Your task to perform on an android device: change the upload size in google photos Image 0: 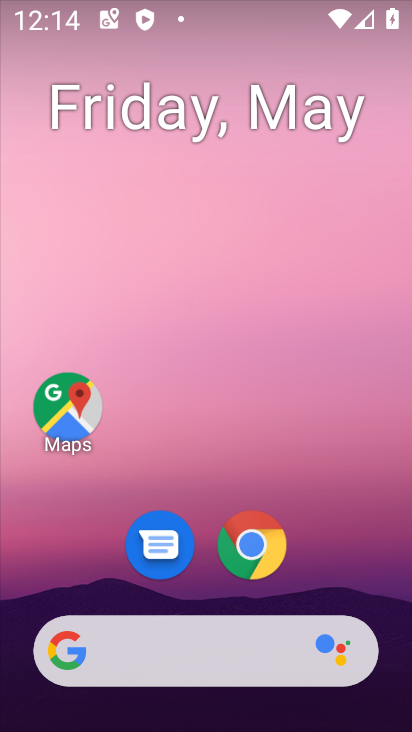
Step 0: drag from (316, 494) to (310, 269)
Your task to perform on an android device: change the upload size in google photos Image 1: 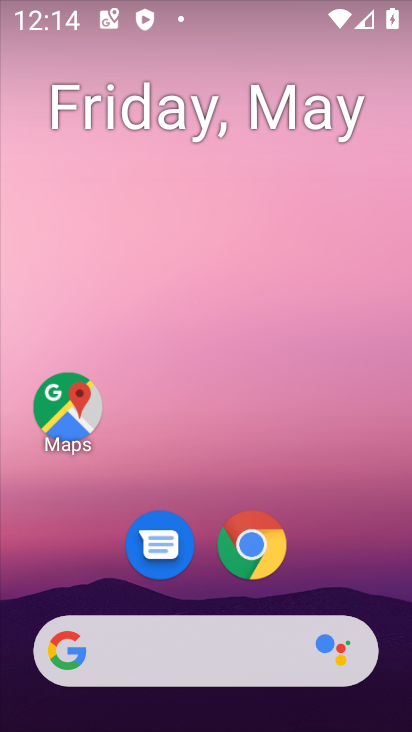
Step 1: drag from (315, 469) to (336, 131)
Your task to perform on an android device: change the upload size in google photos Image 2: 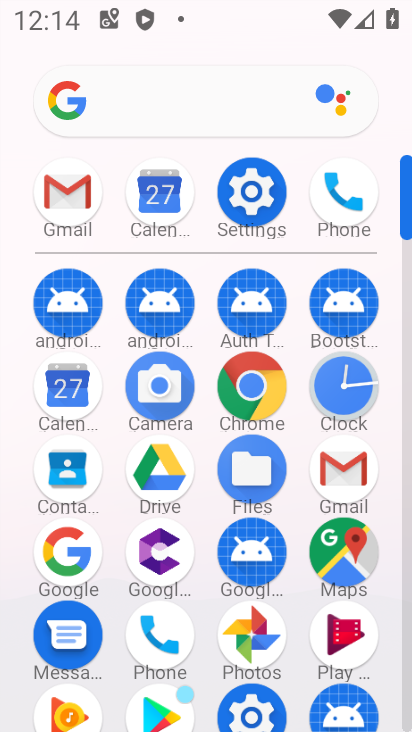
Step 2: click (254, 627)
Your task to perform on an android device: change the upload size in google photos Image 3: 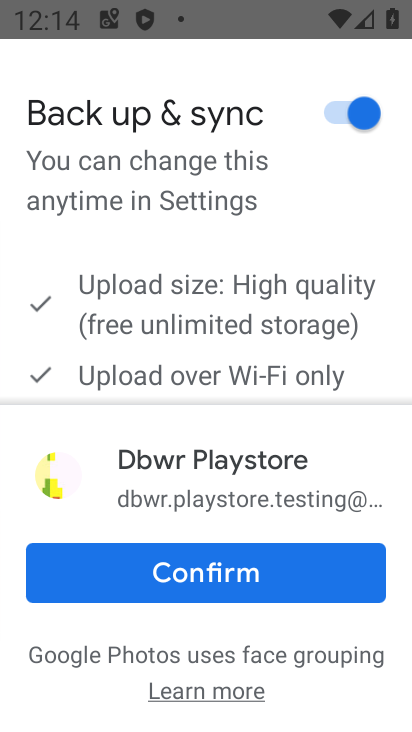
Step 3: click (240, 566)
Your task to perform on an android device: change the upload size in google photos Image 4: 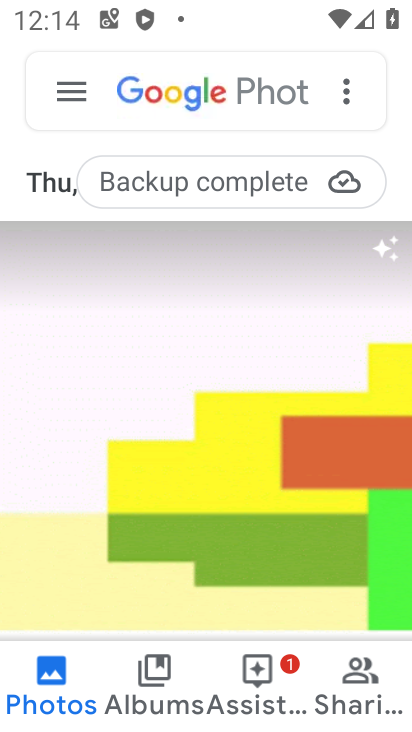
Step 4: click (67, 89)
Your task to perform on an android device: change the upload size in google photos Image 5: 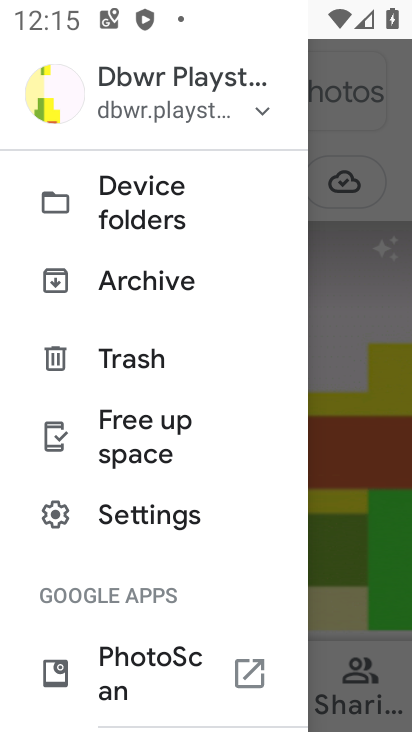
Step 5: click (141, 518)
Your task to perform on an android device: change the upload size in google photos Image 6: 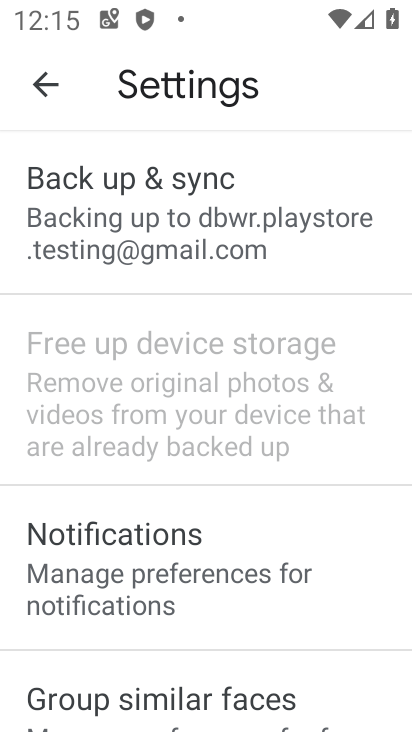
Step 6: click (158, 197)
Your task to perform on an android device: change the upload size in google photos Image 7: 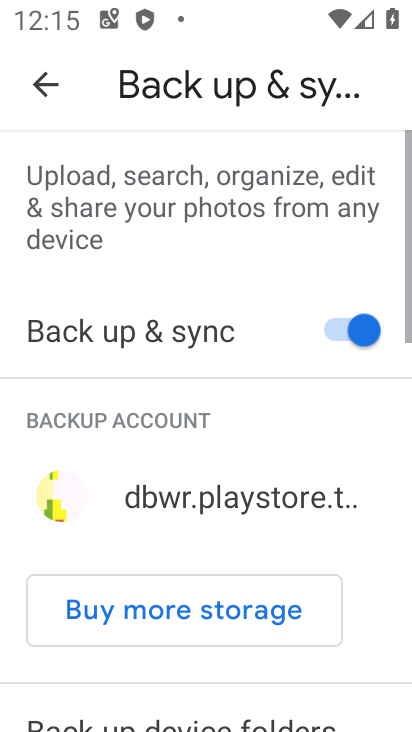
Step 7: drag from (212, 502) to (268, 213)
Your task to perform on an android device: change the upload size in google photos Image 8: 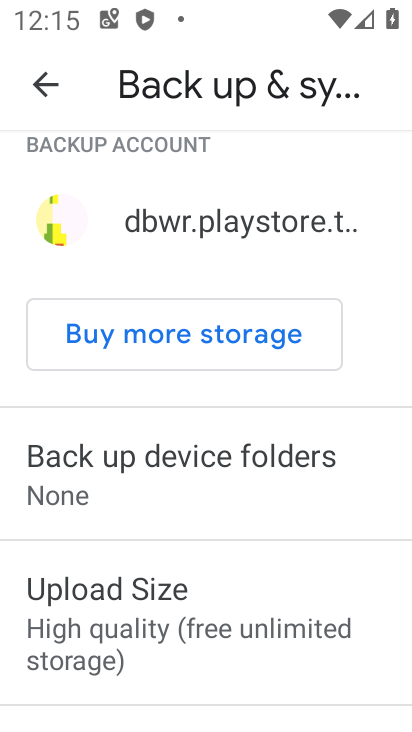
Step 8: click (168, 622)
Your task to perform on an android device: change the upload size in google photos Image 9: 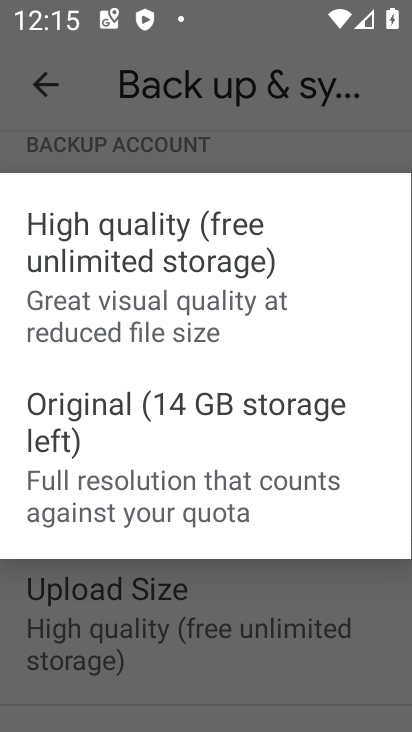
Step 9: click (177, 441)
Your task to perform on an android device: change the upload size in google photos Image 10: 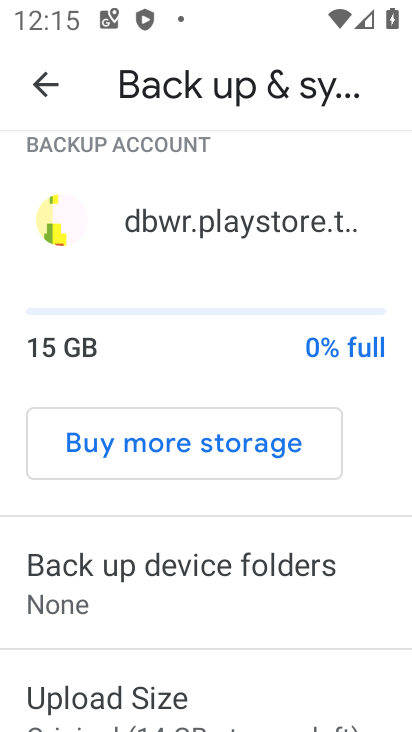
Step 10: task complete